Your task to perform on an android device: What's the weather going to be tomorrow? Image 0: 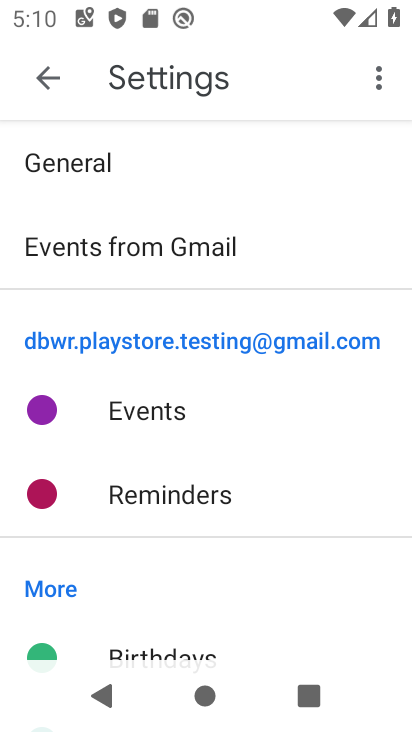
Step 0: press home button
Your task to perform on an android device: What's the weather going to be tomorrow? Image 1: 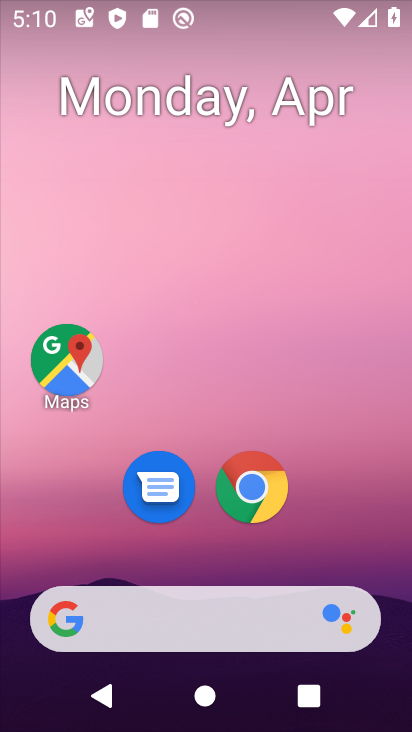
Step 1: drag from (371, 551) to (358, 274)
Your task to perform on an android device: What's the weather going to be tomorrow? Image 2: 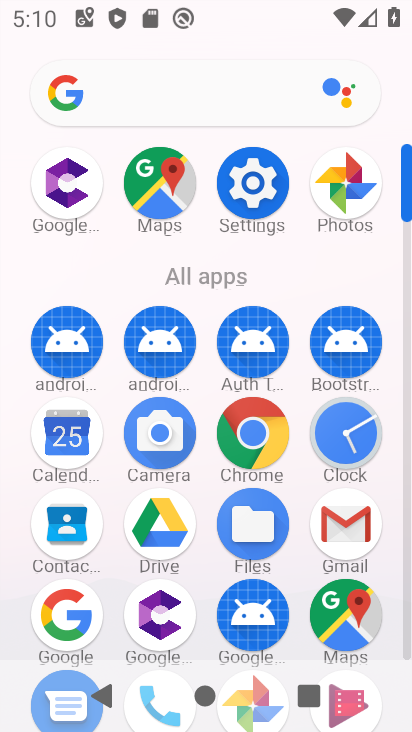
Step 2: click (269, 426)
Your task to perform on an android device: What's the weather going to be tomorrow? Image 3: 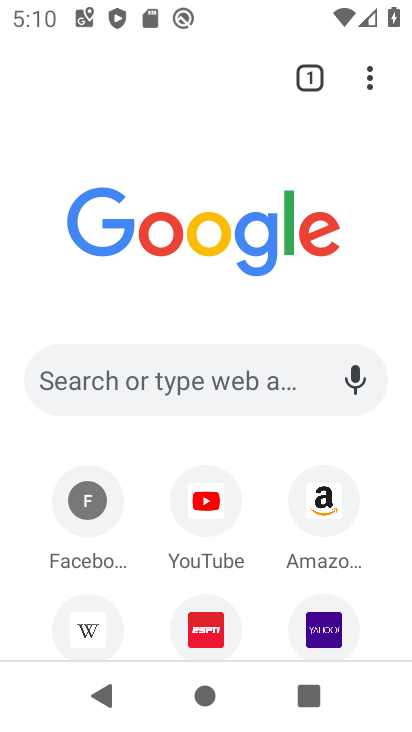
Step 3: click (265, 391)
Your task to perform on an android device: What's the weather going to be tomorrow? Image 4: 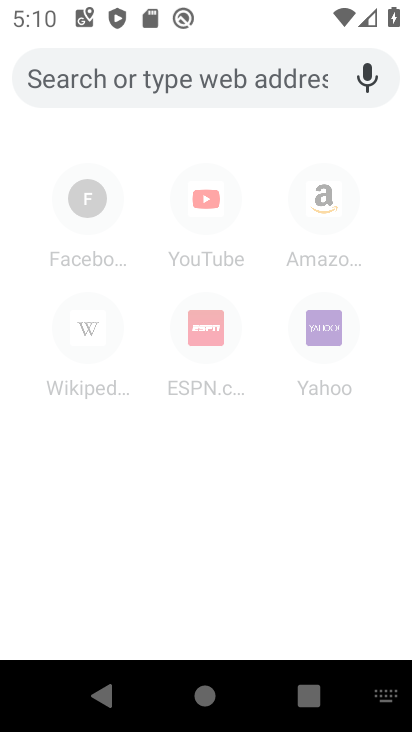
Step 4: type "What's the weather going to be tomorrow?"
Your task to perform on an android device: What's the weather going to be tomorrow? Image 5: 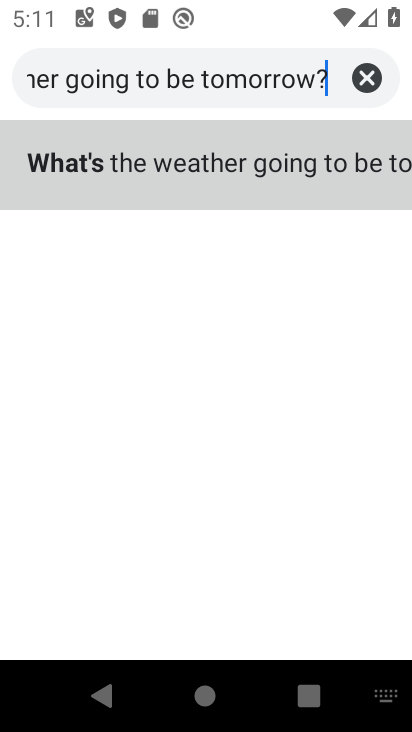
Step 5: press enter
Your task to perform on an android device: What's the weather going to be tomorrow? Image 6: 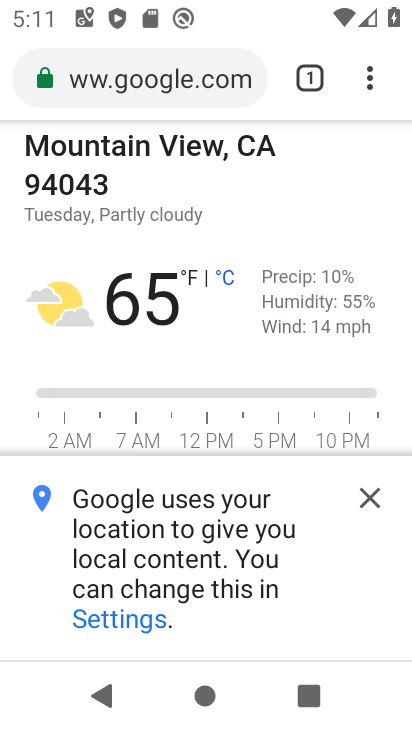
Step 6: click (375, 504)
Your task to perform on an android device: What's the weather going to be tomorrow? Image 7: 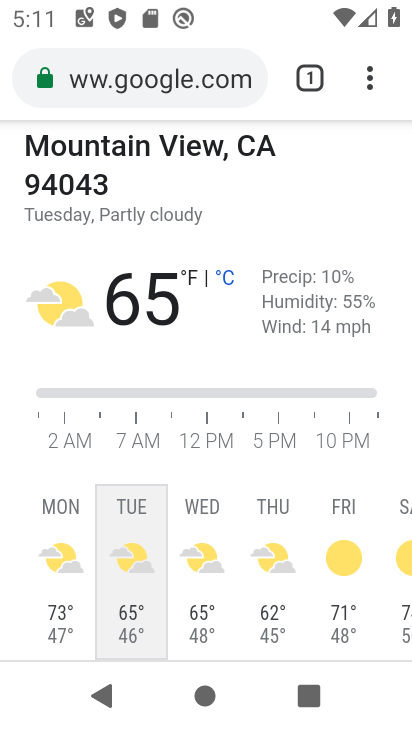
Step 7: task complete